Your task to perform on an android device: Search for the best books on Goodreads. Image 0: 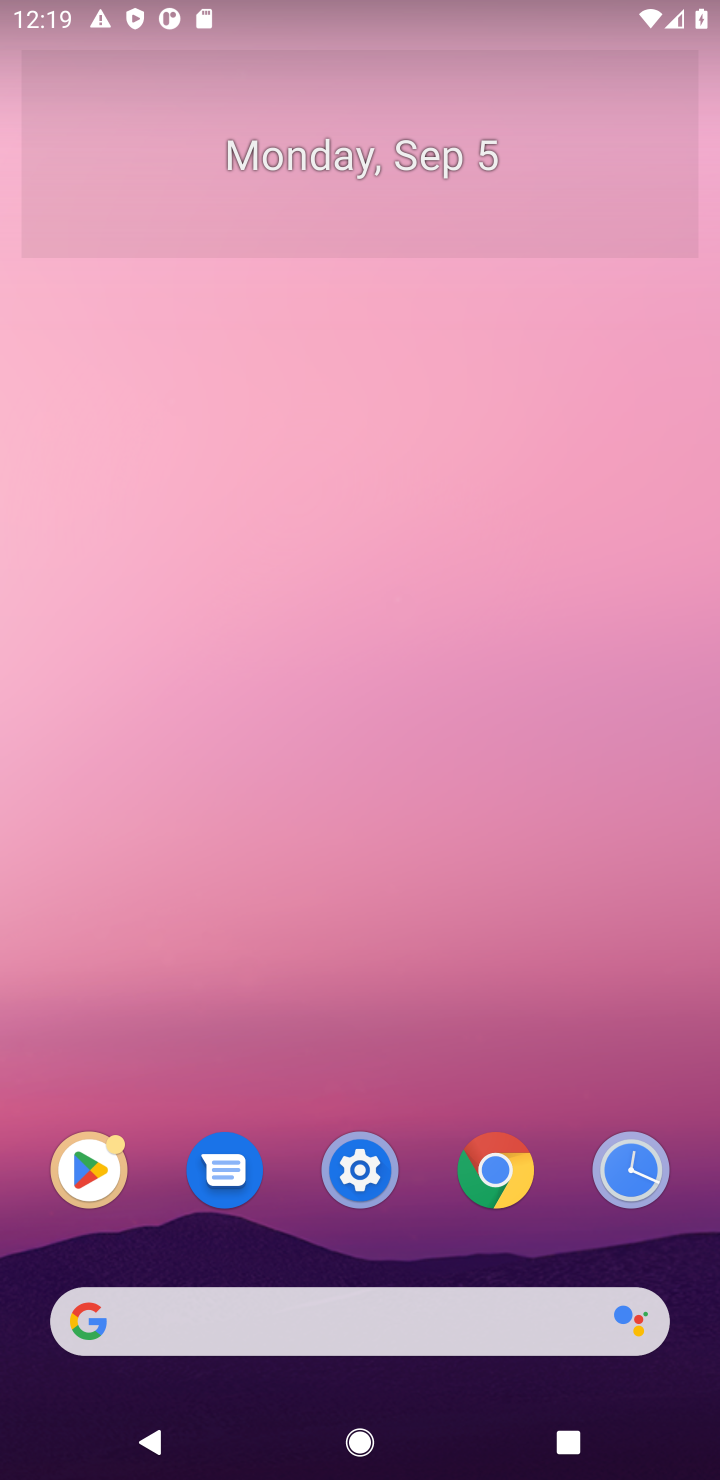
Step 0: click (364, 1312)
Your task to perform on an android device: Search for the best books on Goodreads. Image 1: 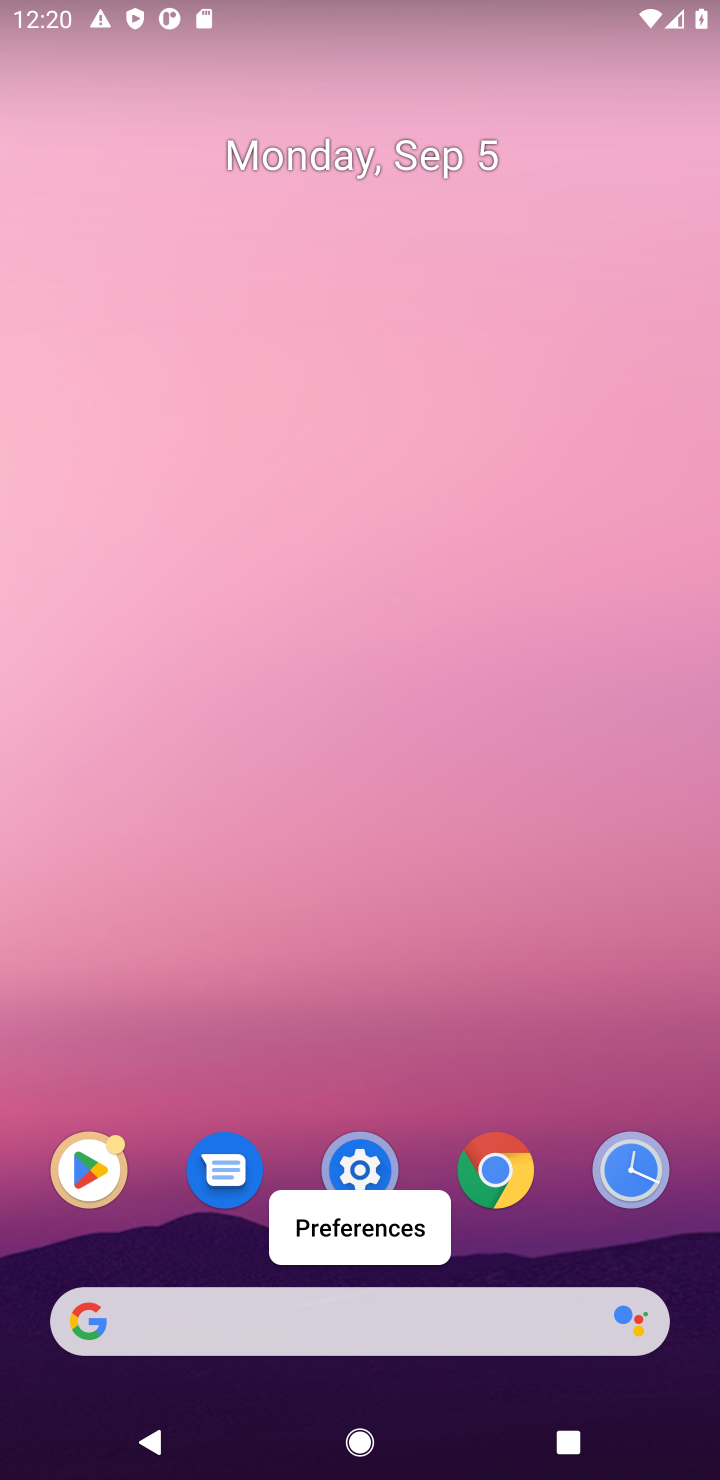
Step 1: click (363, 1320)
Your task to perform on an android device: Search for the best books on Goodreads. Image 2: 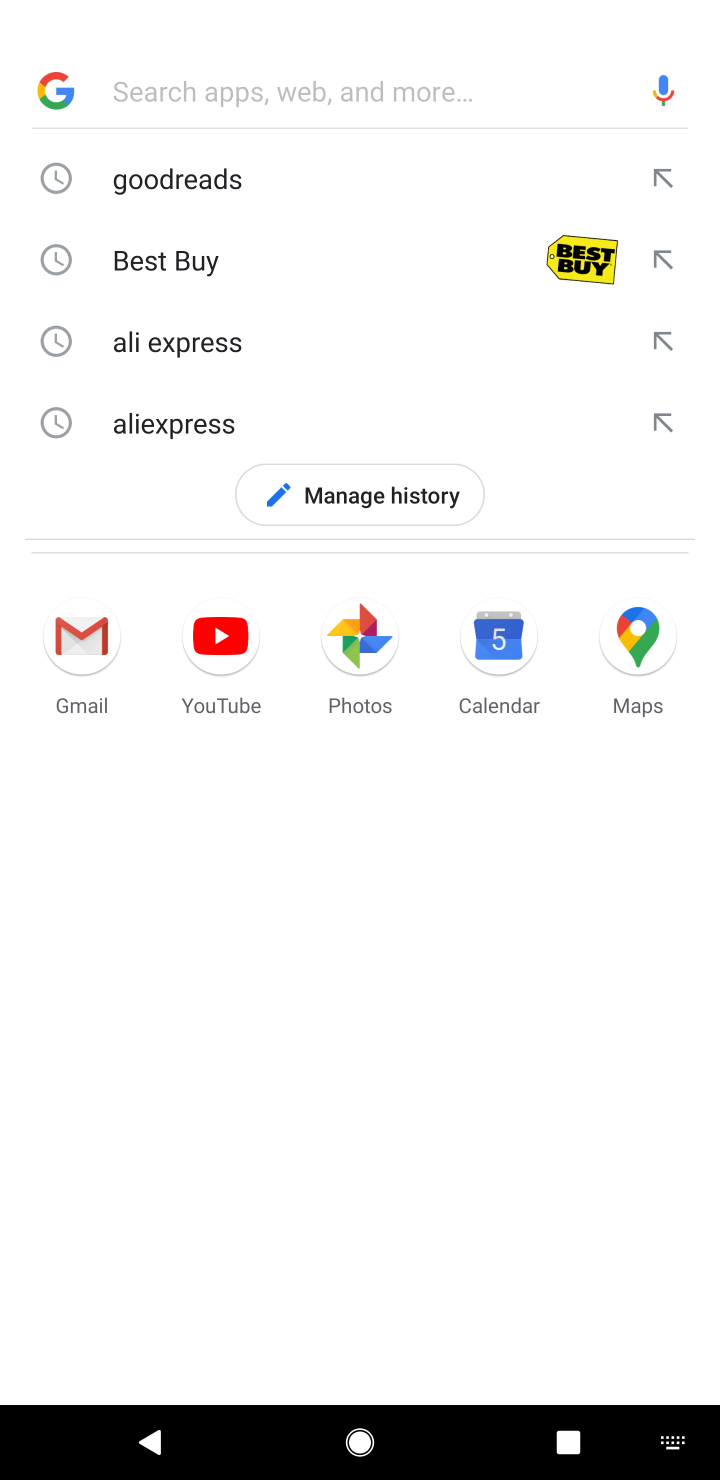
Step 2: click (253, 177)
Your task to perform on an android device: Search for the best books on Goodreads. Image 3: 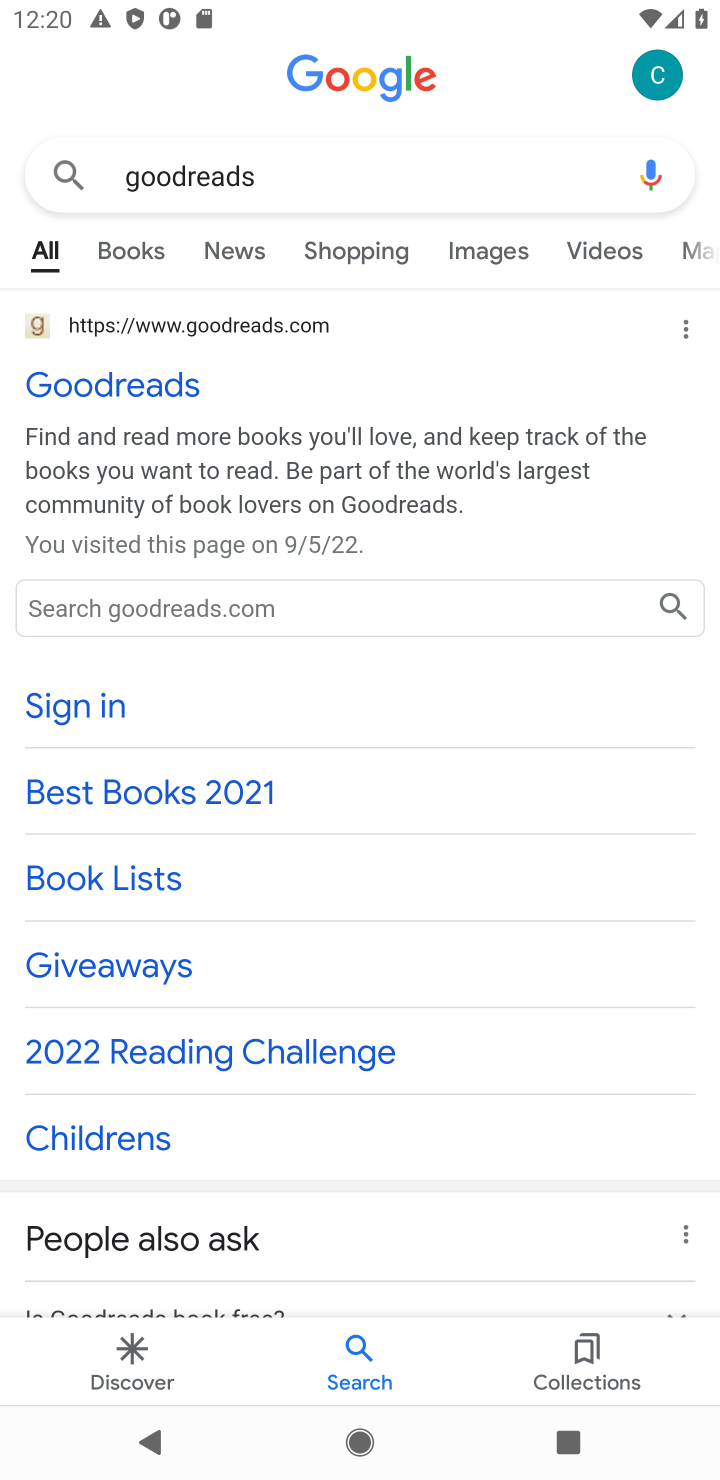
Step 3: click (180, 386)
Your task to perform on an android device: Search for the best books on Goodreads. Image 4: 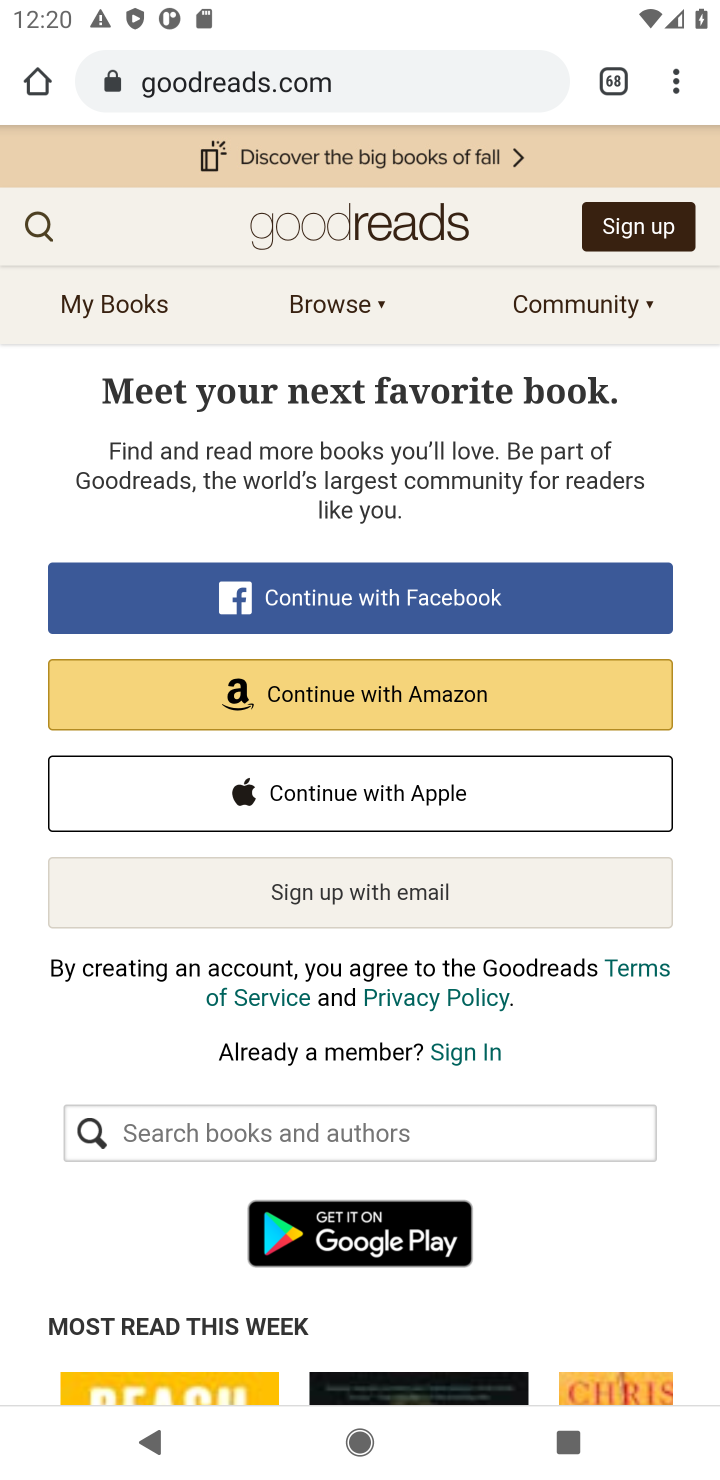
Step 4: click (51, 212)
Your task to perform on an android device: Search for the best books on Goodreads. Image 5: 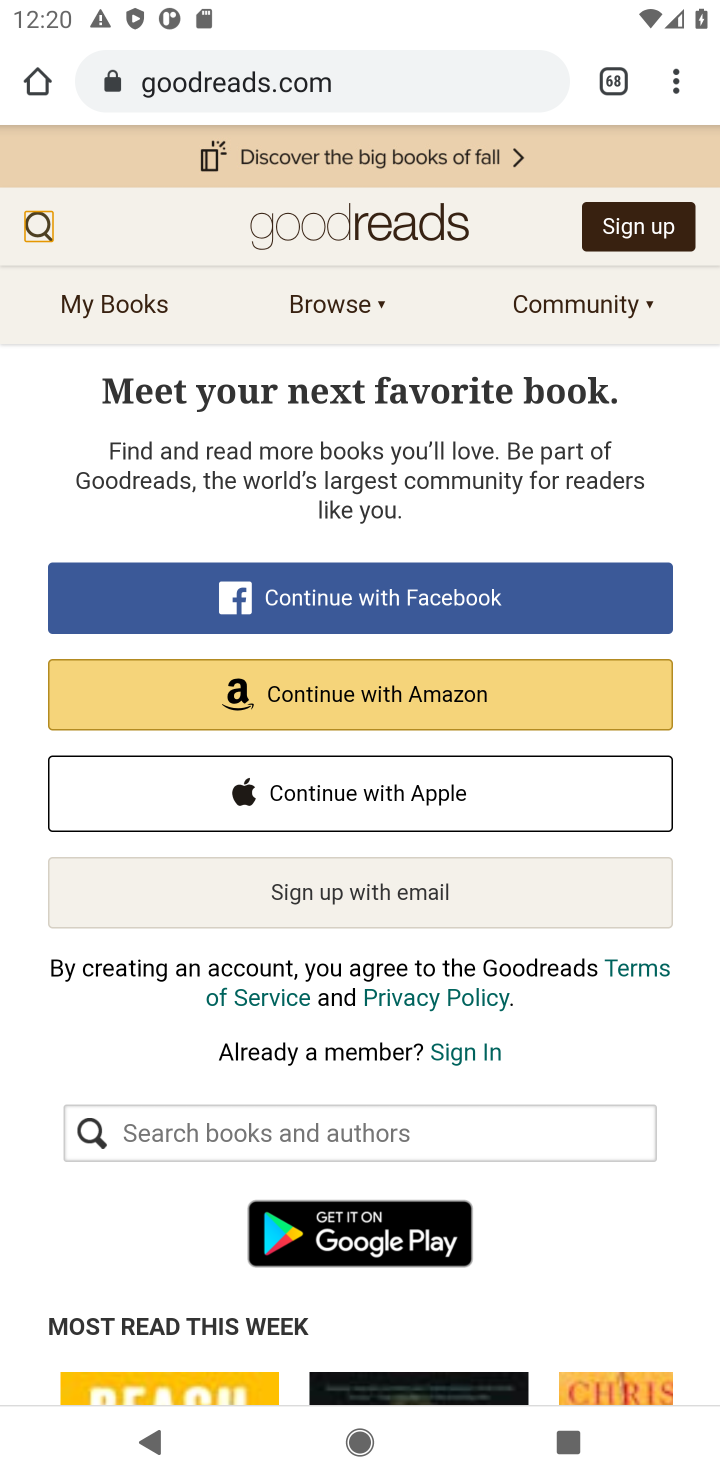
Step 5: click (50, 219)
Your task to perform on an android device: Search for the best books on Goodreads. Image 6: 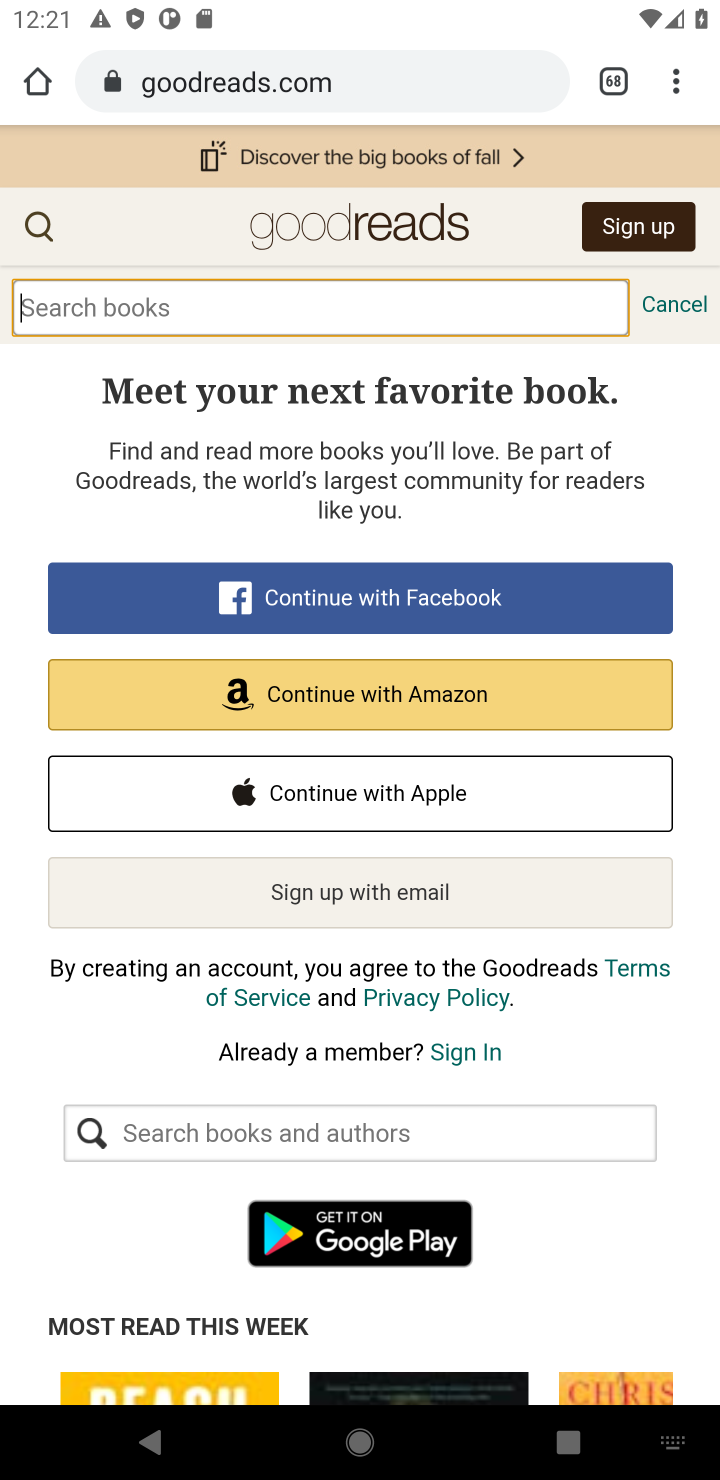
Step 6: click (124, 290)
Your task to perform on an android device: Search for the best books on Goodreads. Image 7: 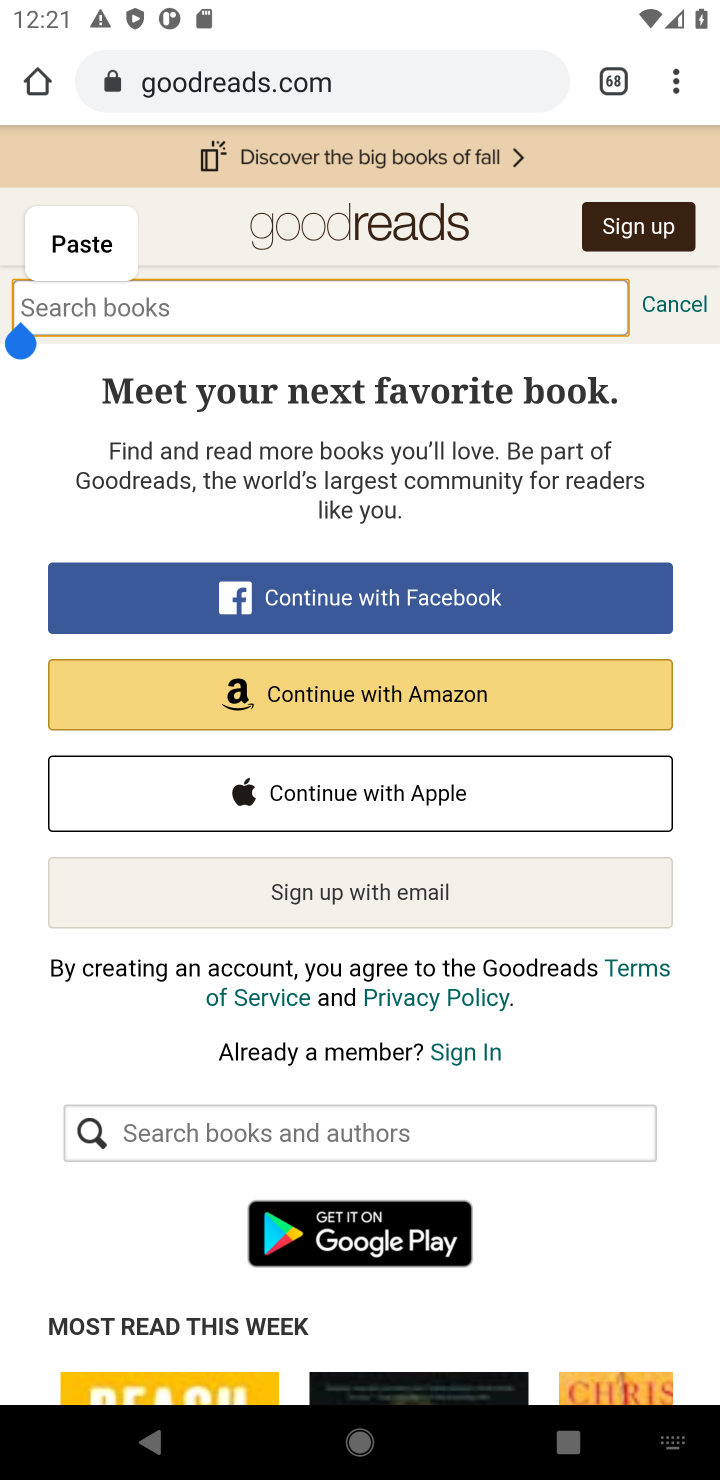
Step 7: type "books "
Your task to perform on an android device: Search for the best books on Goodreads. Image 8: 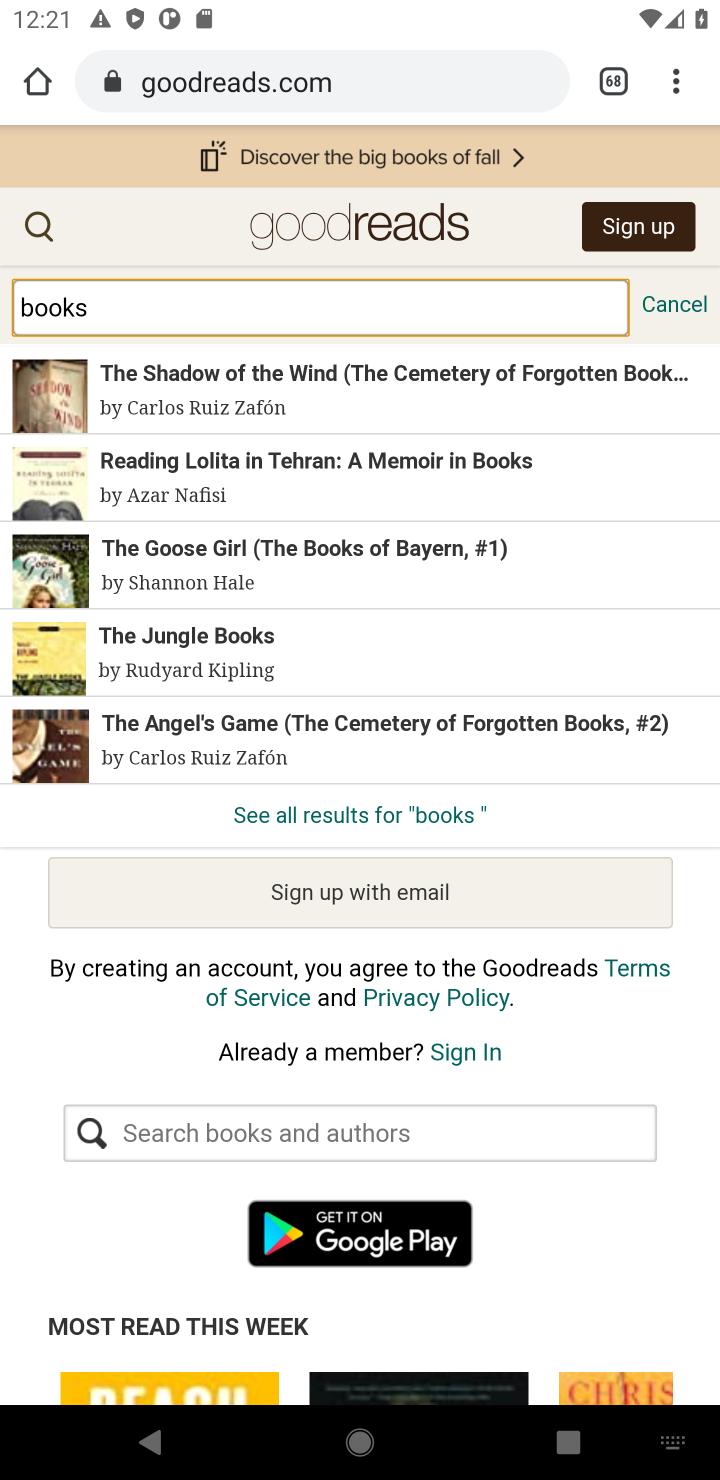
Step 8: task complete